Your task to perform on an android device: toggle priority inbox in the gmail app Image 0: 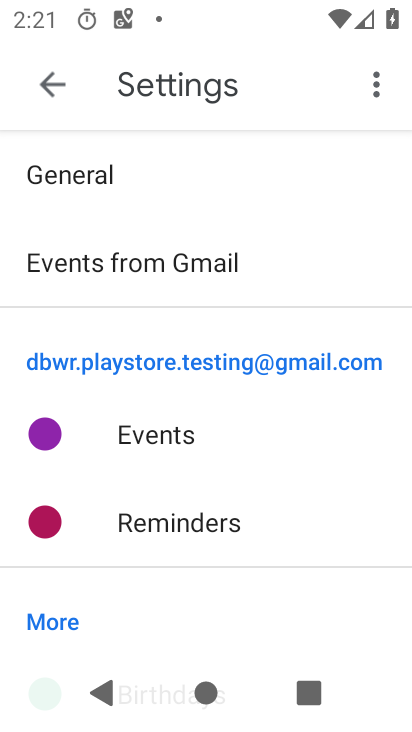
Step 0: press home button
Your task to perform on an android device: toggle priority inbox in the gmail app Image 1: 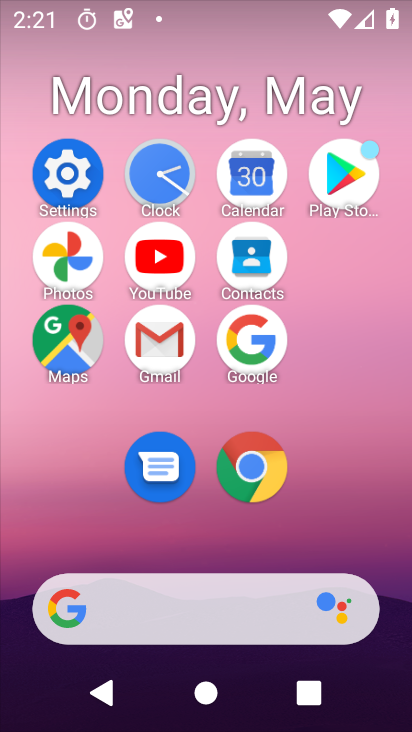
Step 1: click (174, 350)
Your task to perform on an android device: toggle priority inbox in the gmail app Image 2: 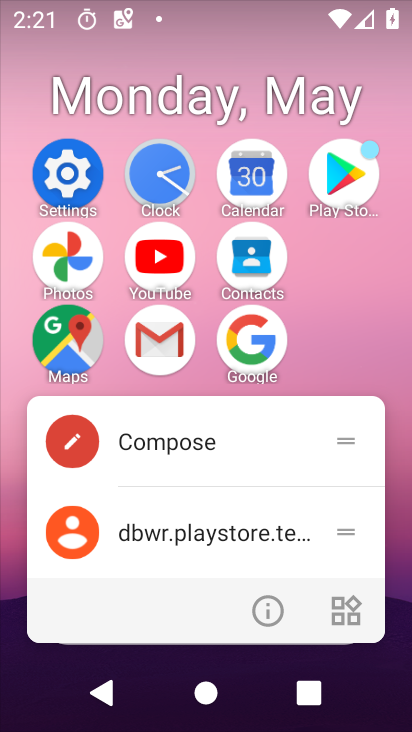
Step 2: click (166, 364)
Your task to perform on an android device: toggle priority inbox in the gmail app Image 3: 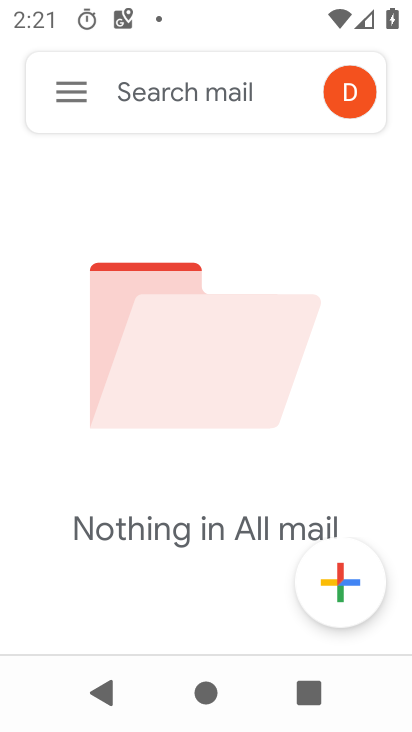
Step 3: click (79, 72)
Your task to perform on an android device: toggle priority inbox in the gmail app Image 4: 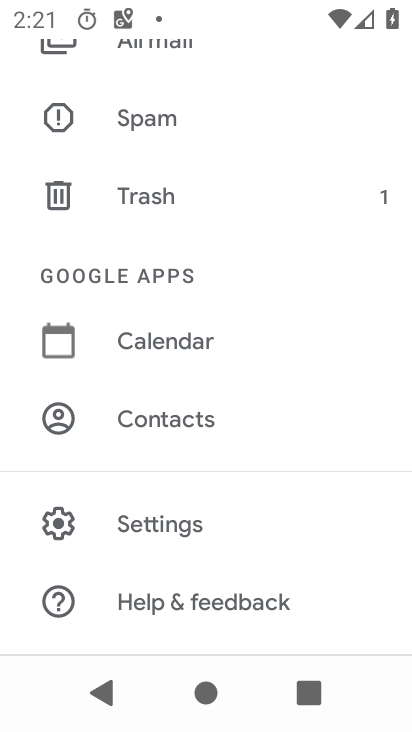
Step 4: click (246, 547)
Your task to perform on an android device: toggle priority inbox in the gmail app Image 5: 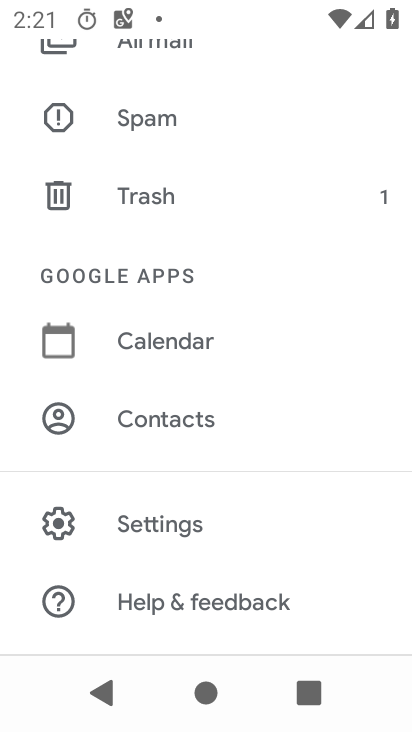
Step 5: click (248, 519)
Your task to perform on an android device: toggle priority inbox in the gmail app Image 6: 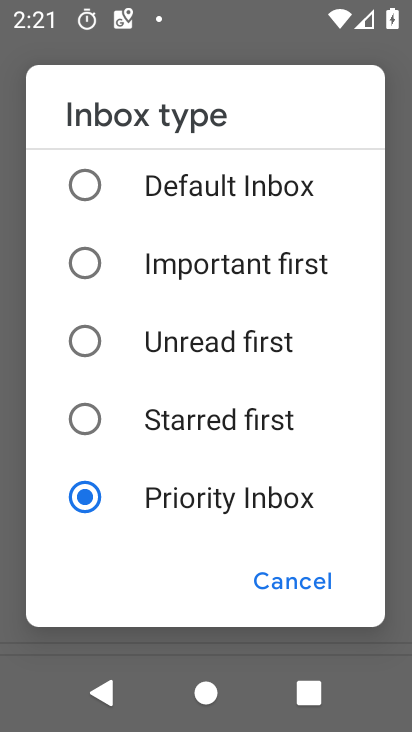
Step 6: click (169, 208)
Your task to perform on an android device: toggle priority inbox in the gmail app Image 7: 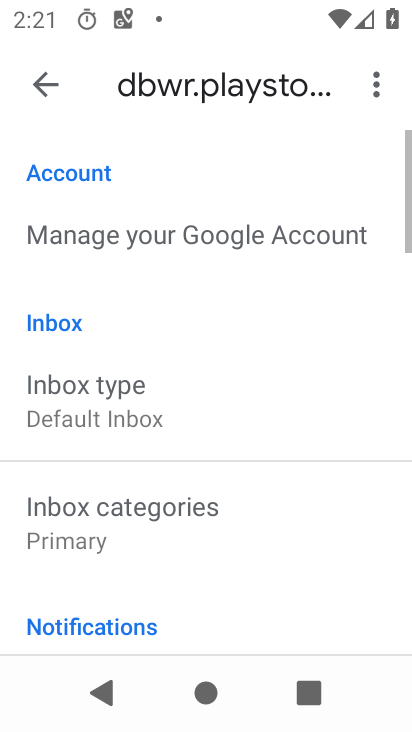
Step 7: task complete